Your task to perform on an android device: turn off location history Image 0: 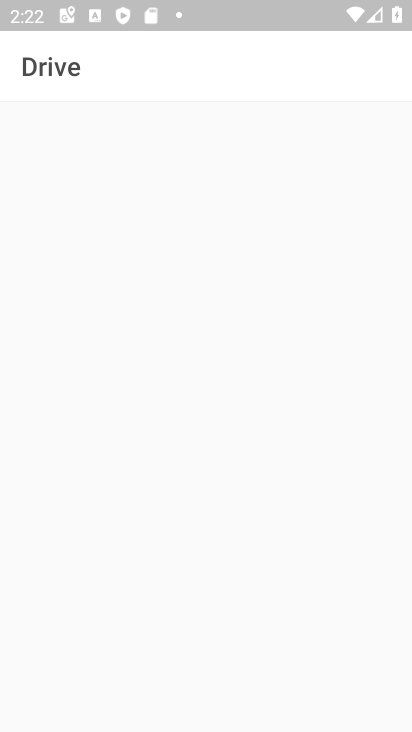
Step 0: press home button
Your task to perform on an android device: turn off location history Image 1: 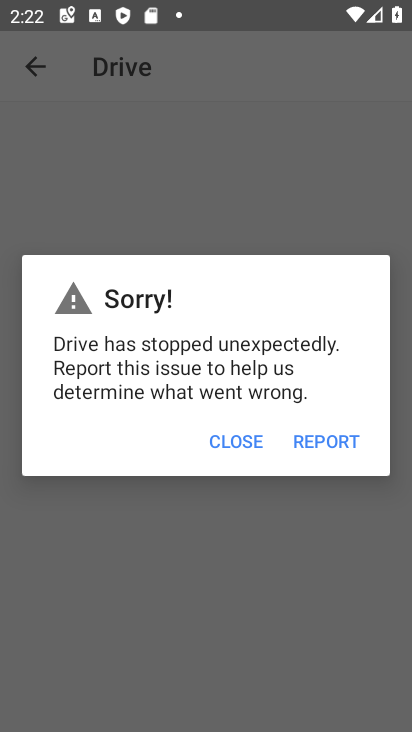
Step 1: press home button
Your task to perform on an android device: turn off location history Image 2: 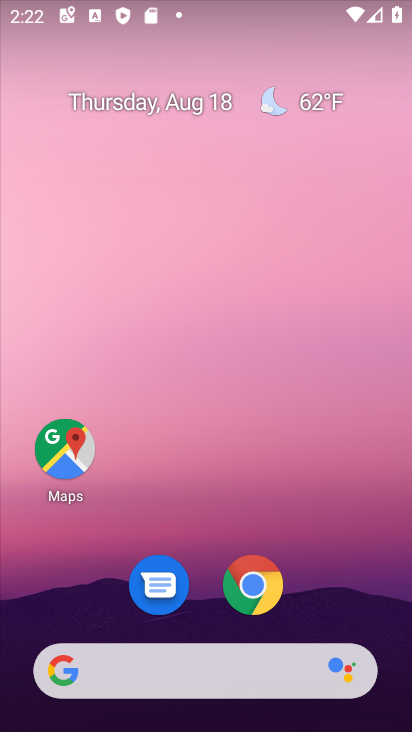
Step 2: drag from (309, 566) to (303, 1)
Your task to perform on an android device: turn off location history Image 3: 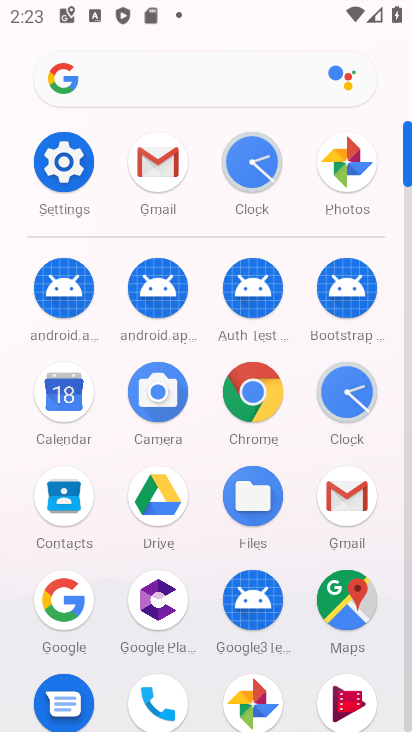
Step 3: click (66, 159)
Your task to perform on an android device: turn off location history Image 4: 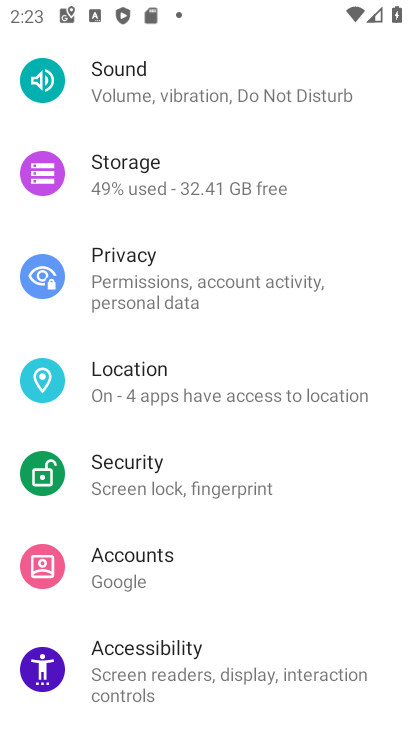
Step 4: click (242, 379)
Your task to perform on an android device: turn off location history Image 5: 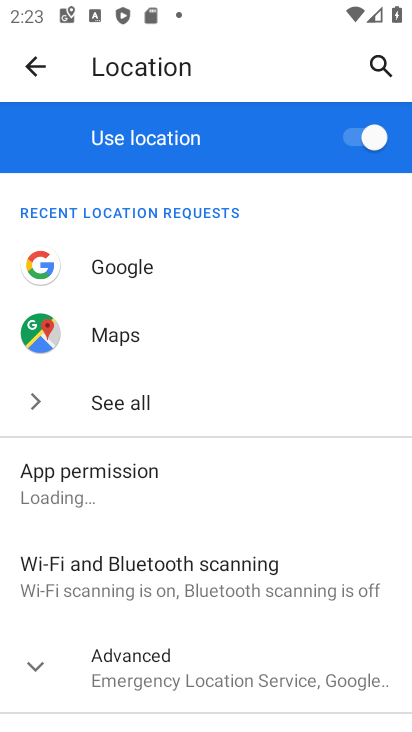
Step 5: drag from (254, 492) to (284, 118)
Your task to perform on an android device: turn off location history Image 6: 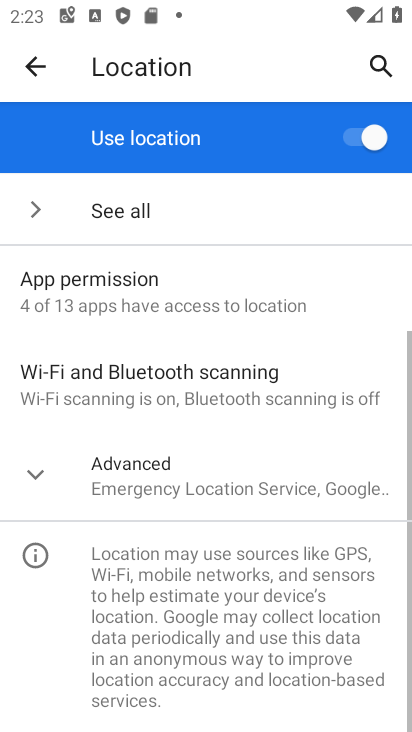
Step 6: click (29, 464)
Your task to perform on an android device: turn off location history Image 7: 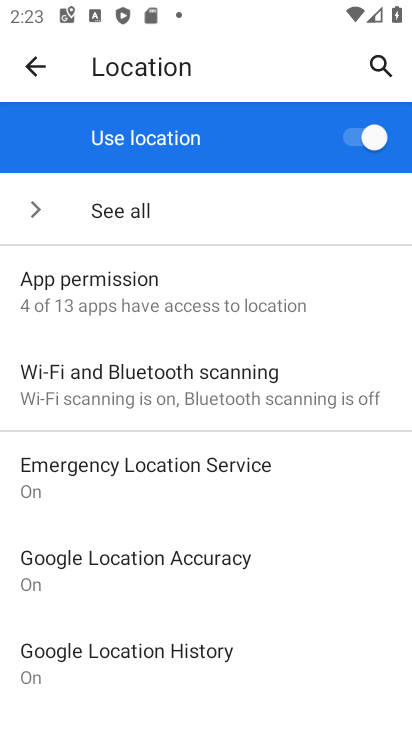
Step 7: click (181, 649)
Your task to perform on an android device: turn off location history Image 8: 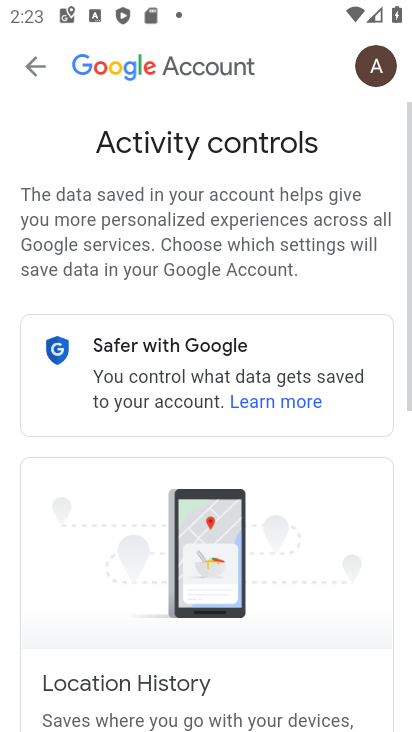
Step 8: drag from (114, 596) to (161, 79)
Your task to perform on an android device: turn off location history Image 9: 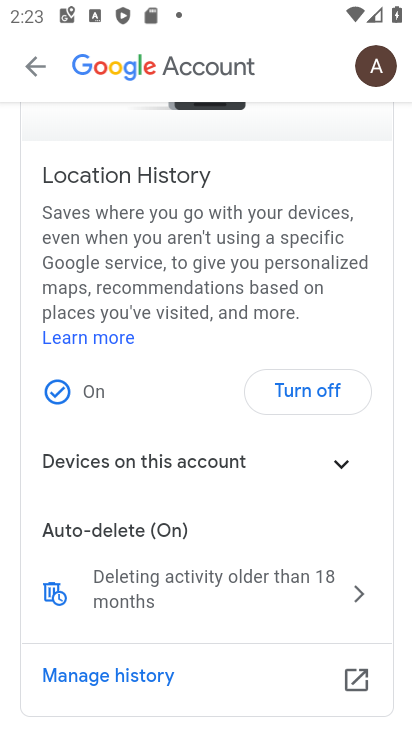
Step 9: click (299, 395)
Your task to perform on an android device: turn off location history Image 10: 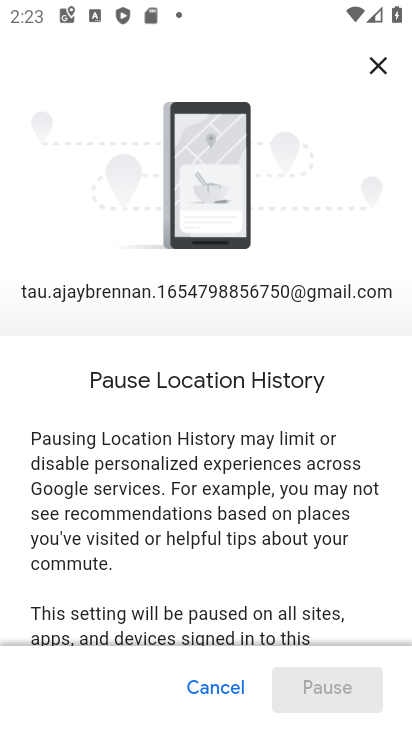
Step 10: drag from (272, 526) to (275, 0)
Your task to perform on an android device: turn off location history Image 11: 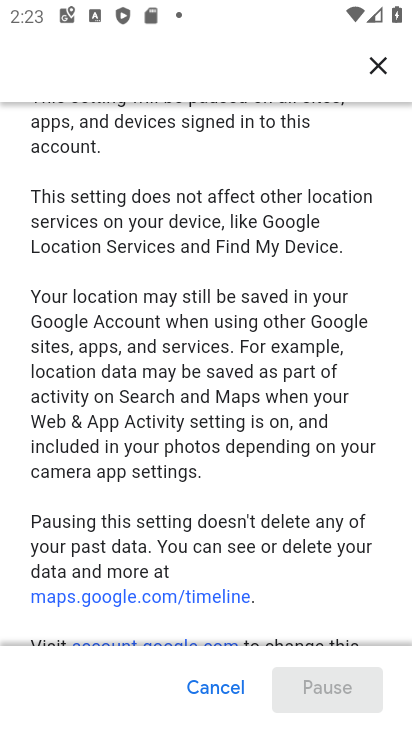
Step 11: drag from (252, 465) to (268, 3)
Your task to perform on an android device: turn off location history Image 12: 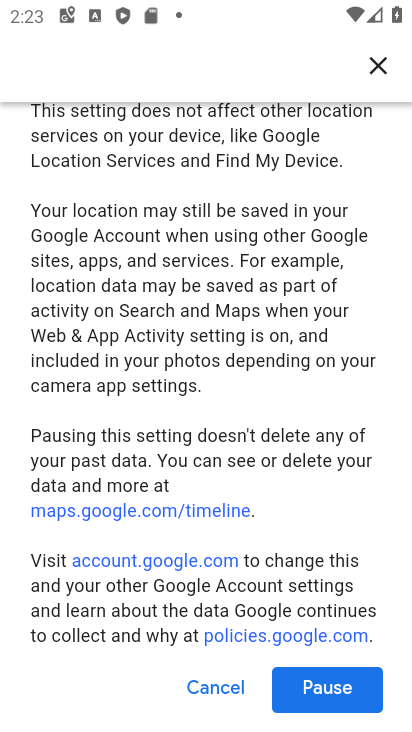
Step 12: click (348, 682)
Your task to perform on an android device: turn off location history Image 13: 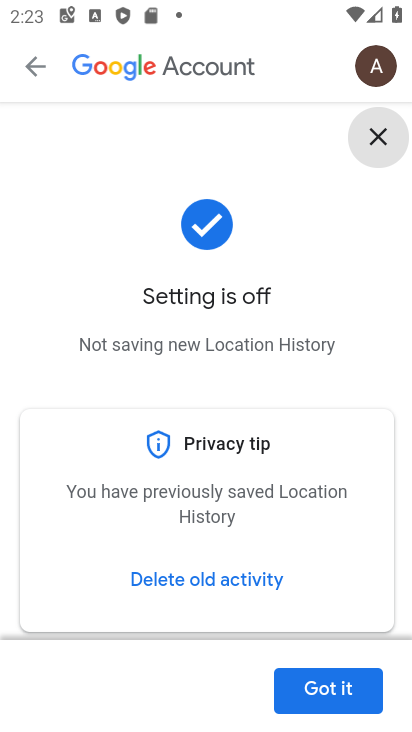
Step 13: click (345, 693)
Your task to perform on an android device: turn off location history Image 14: 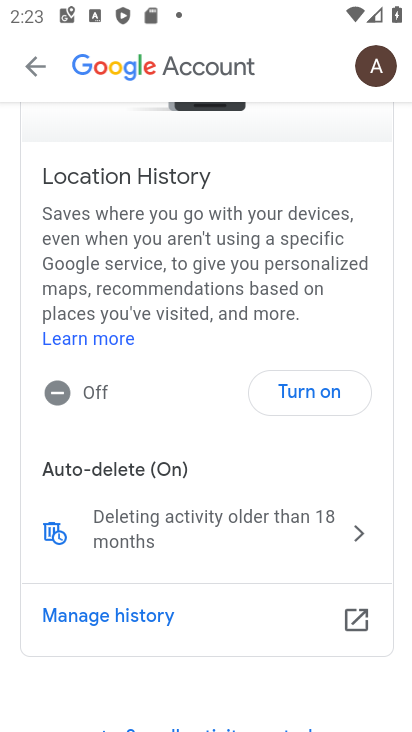
Step 14: task complete